Your task to perform on an android device: What is the recent news? Image 0: 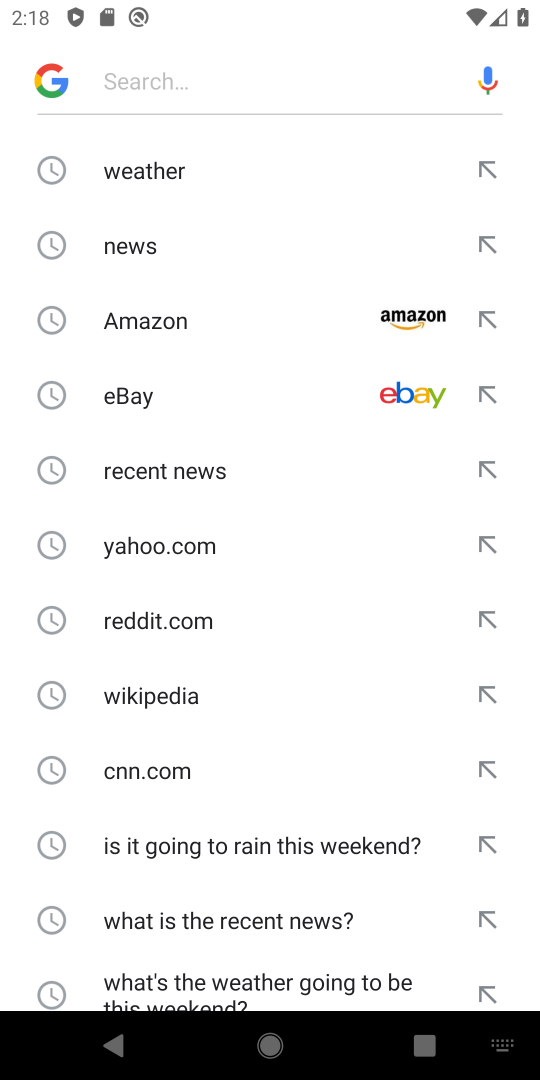
Step 0: press home button
Your task to perform on an android device: What is the recent news? Image 1: 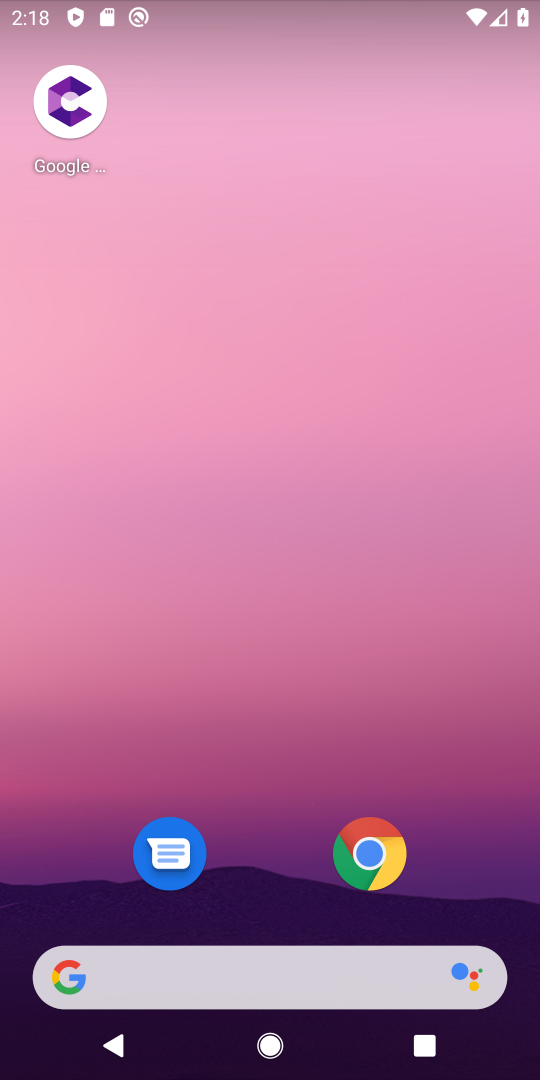
Step 1: drag from (251, 861) to (282, 113)
Your task to perform on an android device: What is the recent news? Image 2: 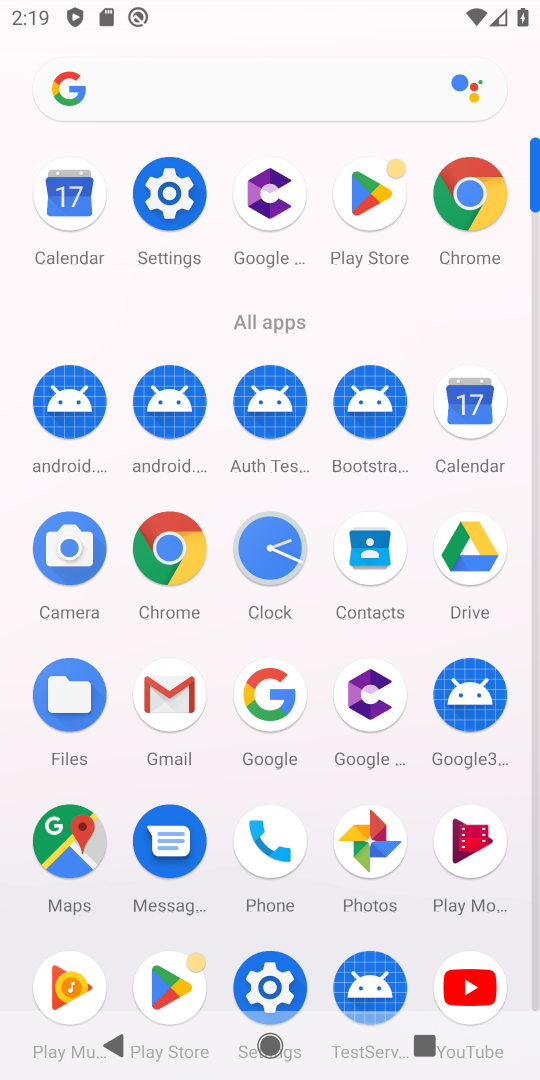
Step 2: click (158, 543)
Your task to perform on an android device: What is the recent news? Image 3: 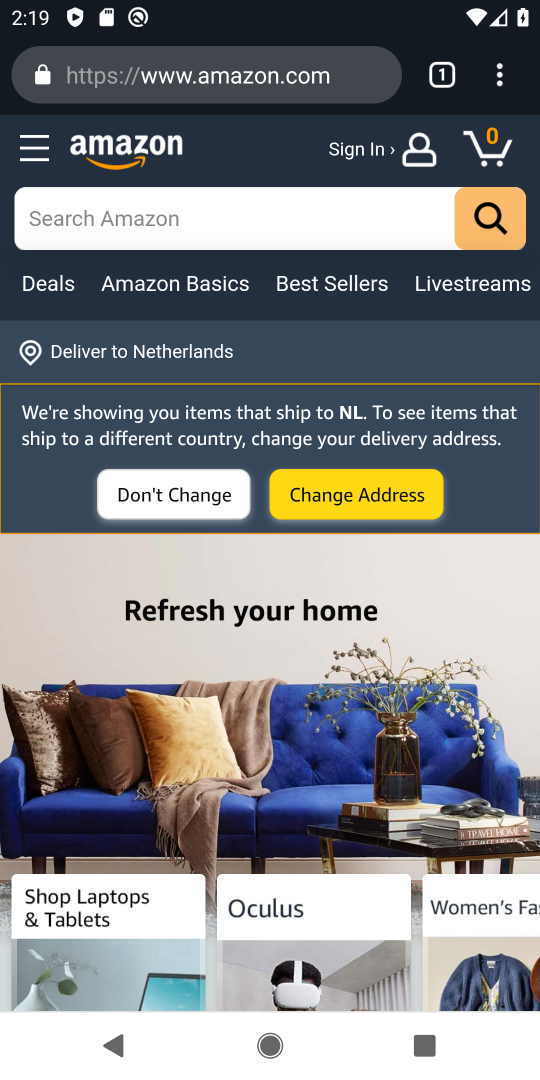
Step 3: click (255, 74)
Your task to perform on an android device: What is the recent news? Image 4: 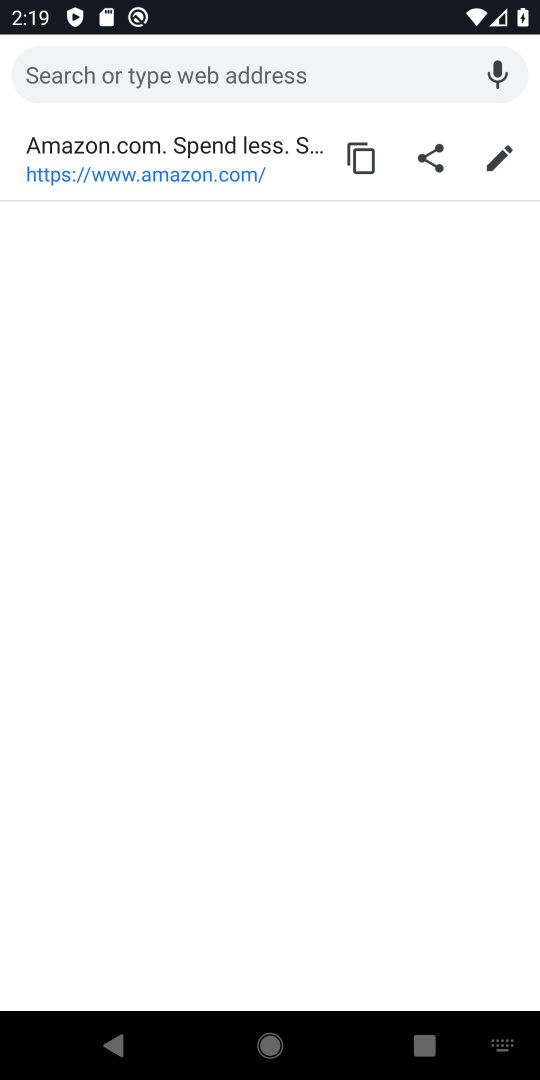
Step 4: type "What is the recent news?"
Your task to perform on an android device: What is the recent news? Image 5: 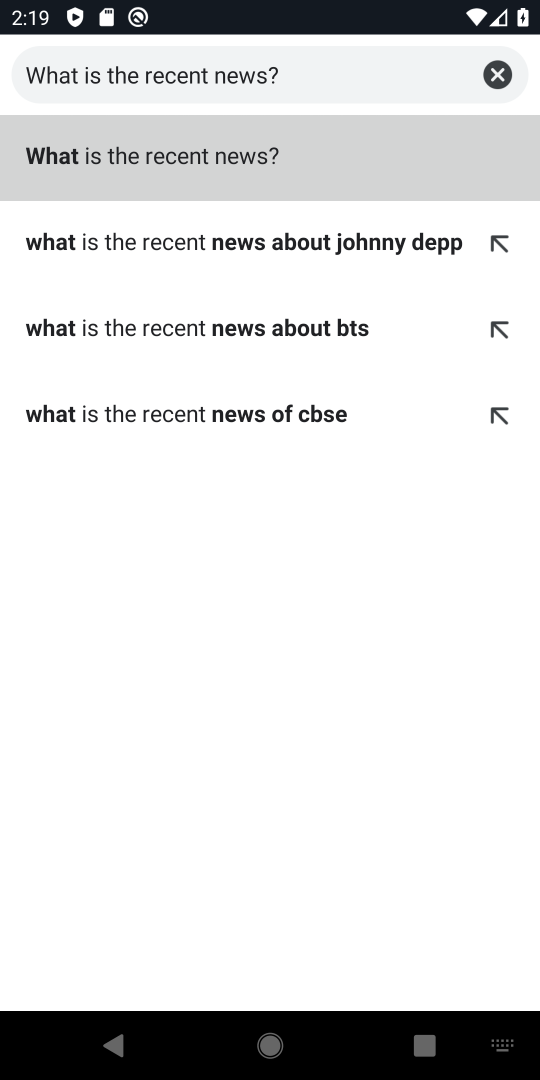
Step 5: click (187, 147)
Your task to perform on an android device: What is the recent news? Image 6: 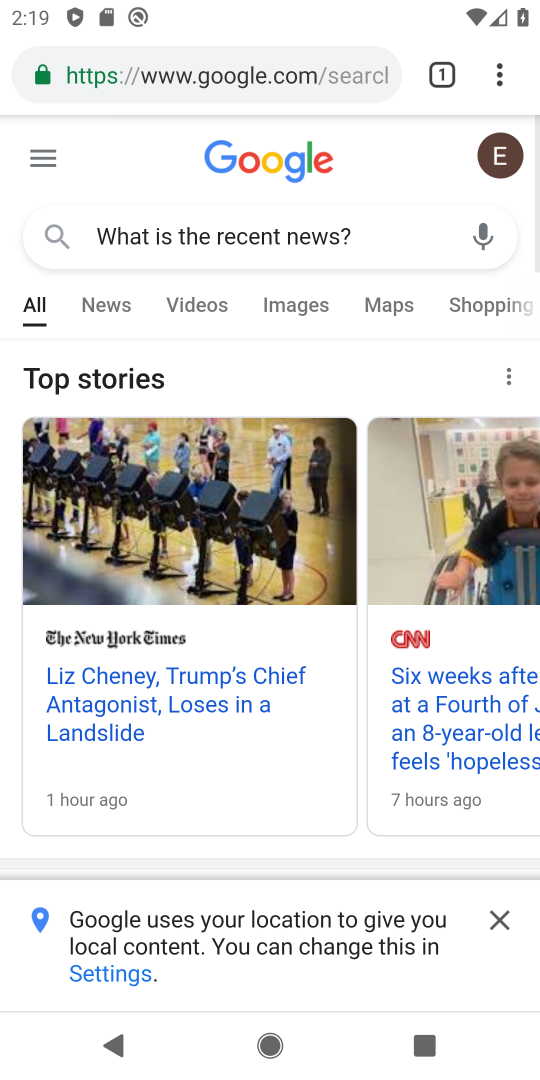
Step 6: task complete